Your task to perform on an android device: find which apps use the phone's location Image 0: 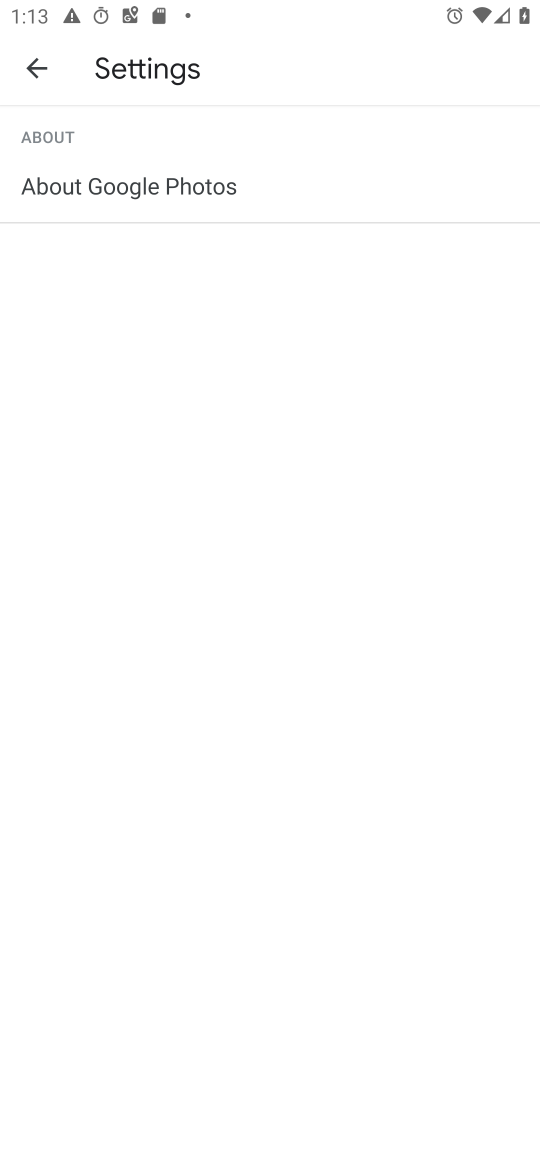
Step 0: press home button
Your task to perform on an android device: find which apps use the phone's location Image 1: 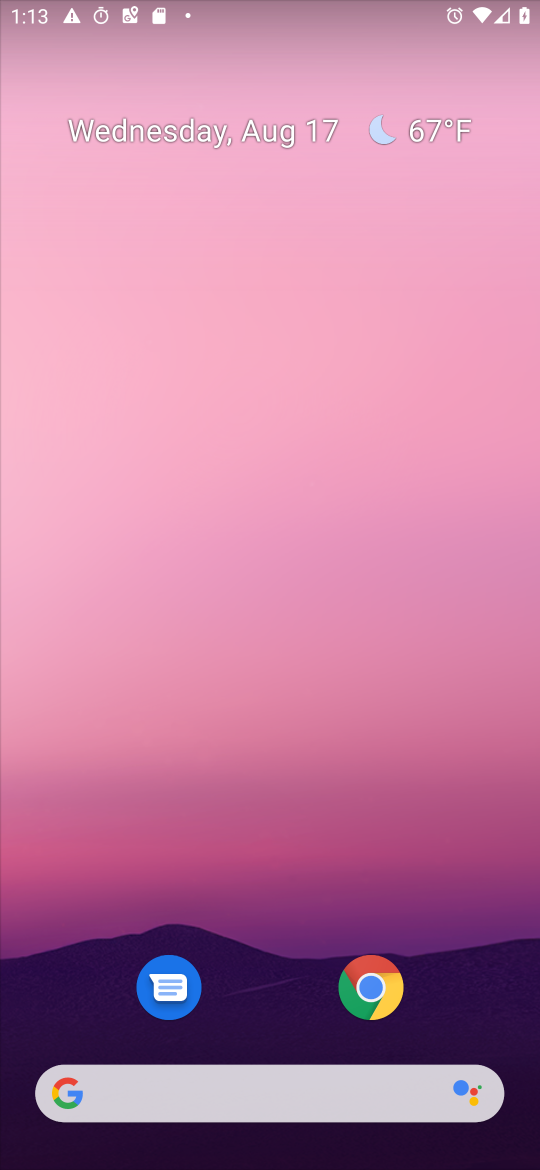
Step 1: click (19, 1094)
Your task to perform on an android device: find which apps use the phone's location Image 2: 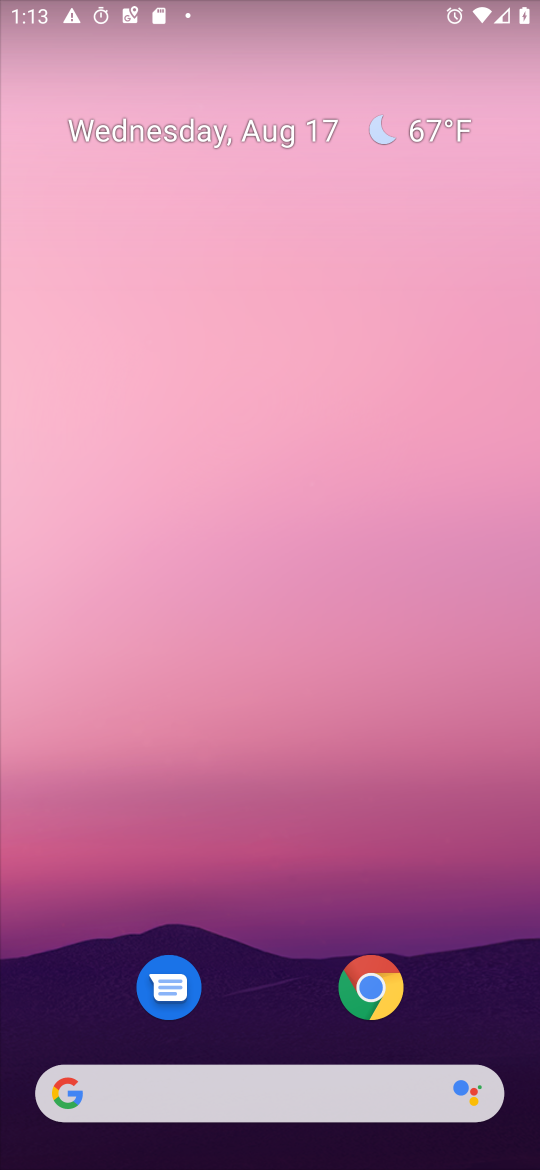
Step 2: drag from (15, 1104) to (264, 483)
Your task to perform on an android device: find which apps use the phone's location Image 3: 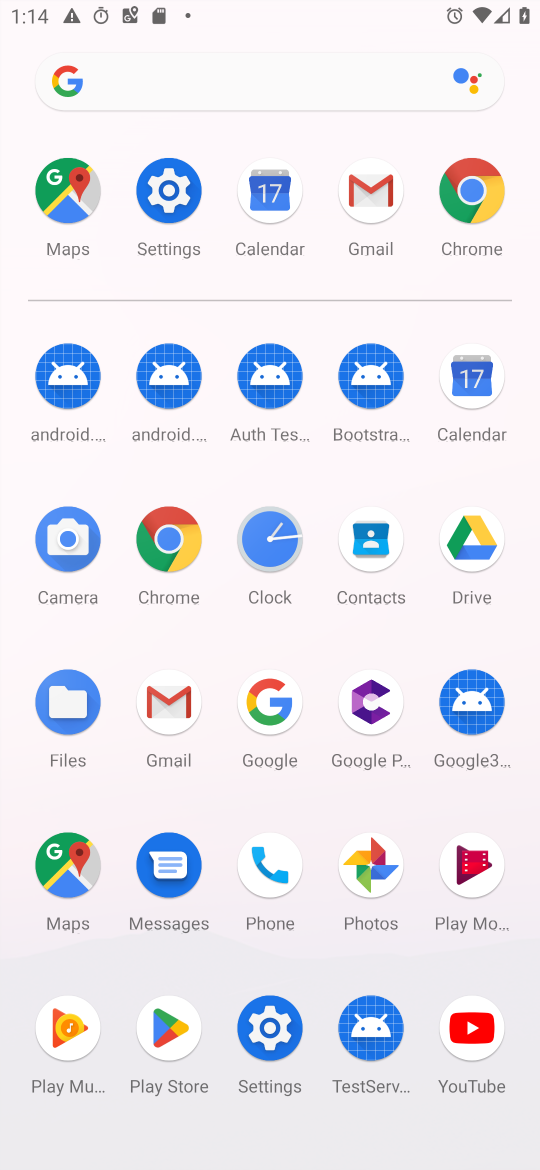
Step 3: click (271, 1030)
Your task to perform on an android device: find which apps use the phone's location Image 4: 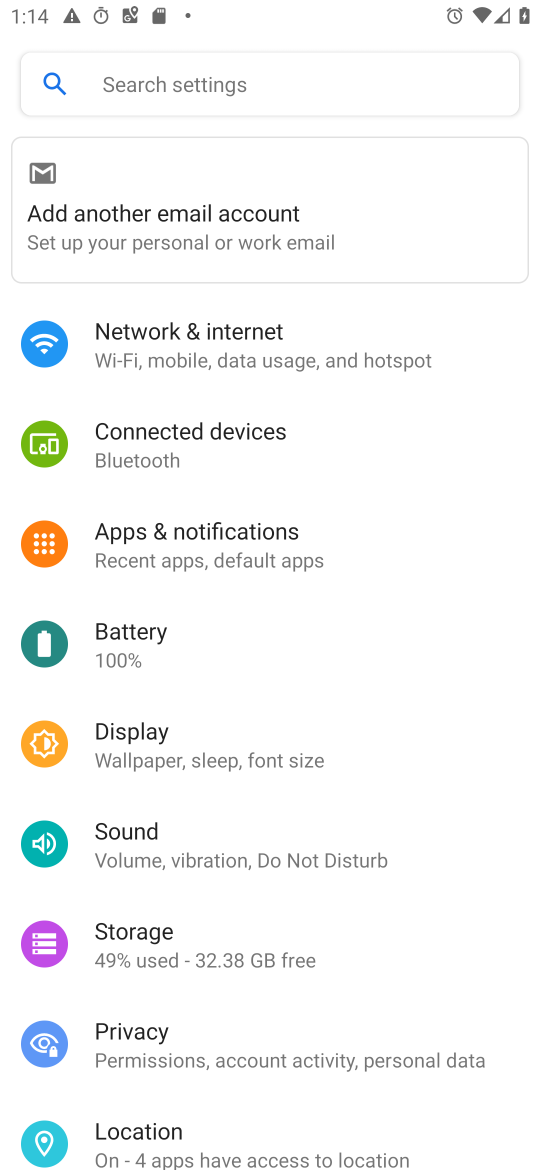
Step 4: click (253, 1136)
Your task to perform on an android device: find which apps use the phone's location Image 5: 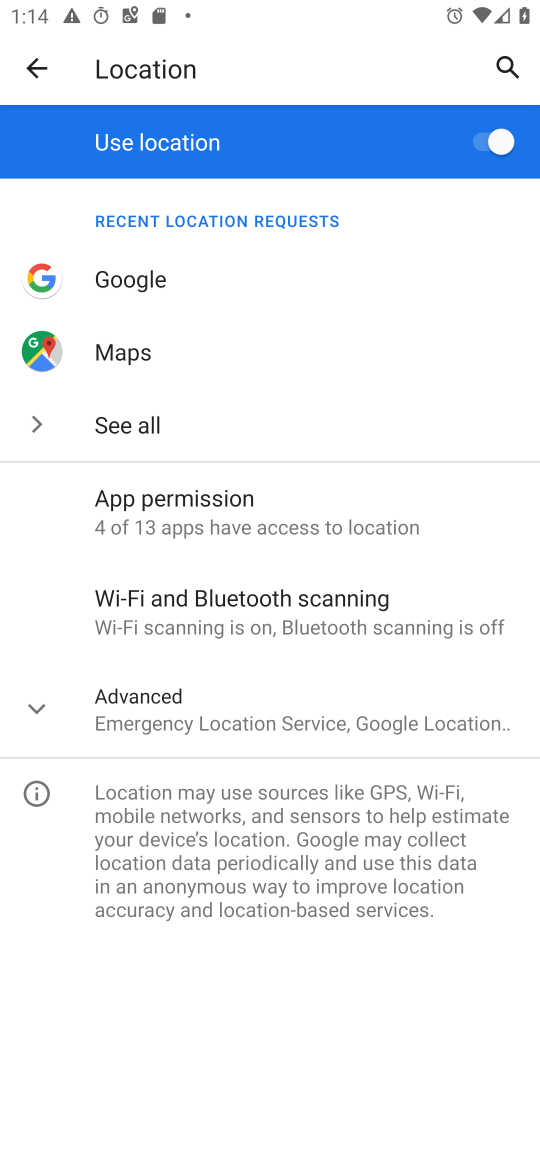
Step 5: task complete